Your task to perform on an android device: Search for vegetarian restaurants on Maps Image 0: 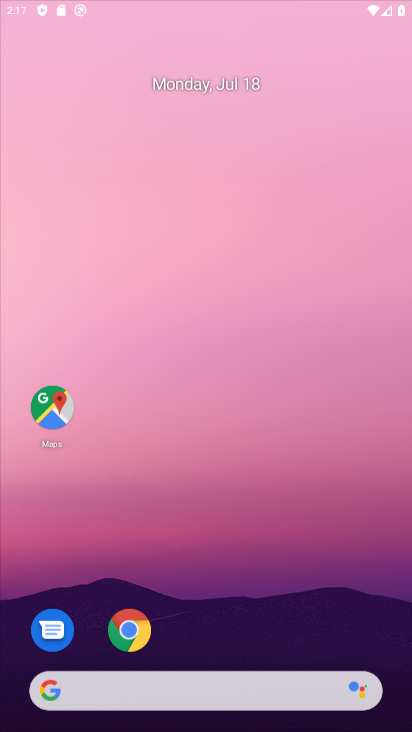
Step 0: drag from (300, 119) to (274, 46)
Your task to perform on an android device: Search for vegetarian restaurants on Maps Image 1: 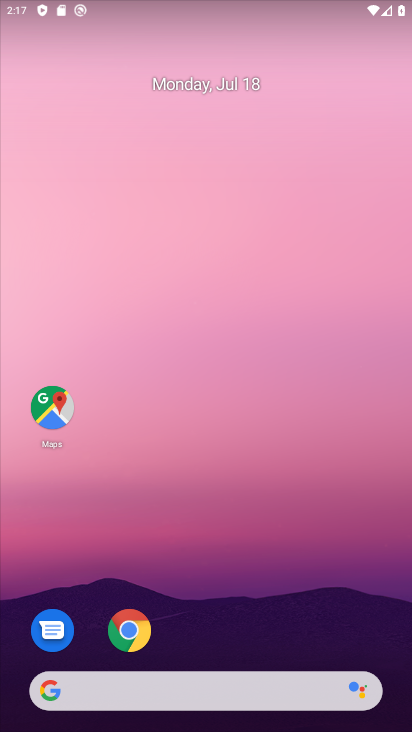
Step 1: drag from (357, 621) to (197, 6)
Your task to perform on an android device: Search for vegetarian restaurants on Maps Image 2: 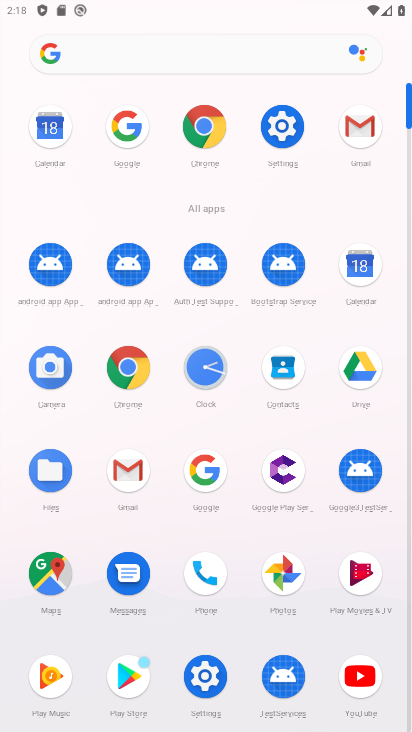
Step 2: click (49, 573)
Your task to perform on an android device: Search for vegetarian restaurants on Maps Image 3: 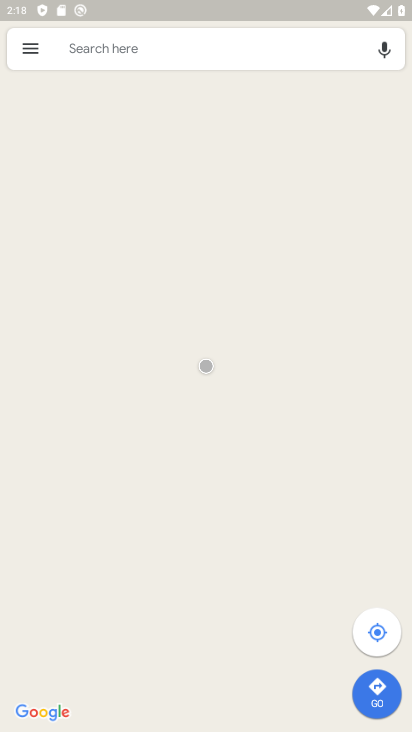
Step 3: click (173, 51)
Your task to perform on an android device: Search for vegetarian restaurants on Maps Image 4: 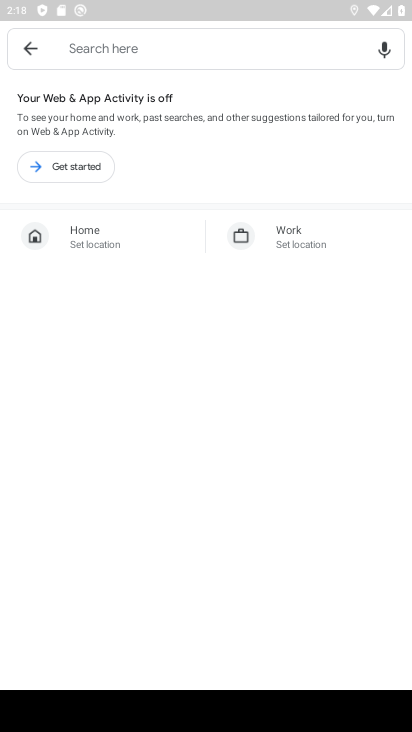
Step 4: click (86, 166)
Your task to perform on an android device: Search for vegetarian restaurants on Maps Image 5: 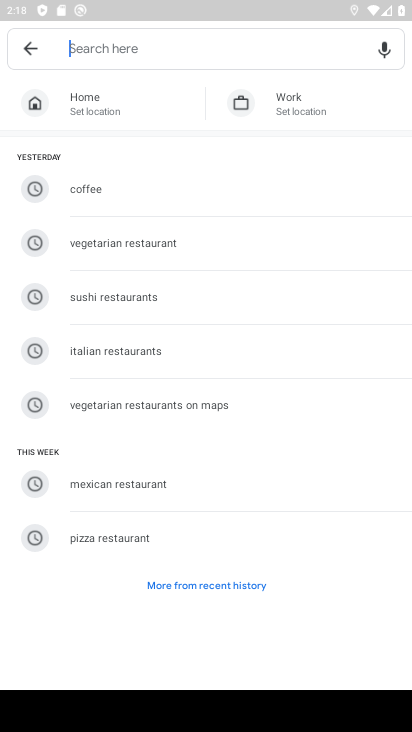
Step 5: click (110, 414)
Your task to perform on an android device: Search for vegetarian restaurants on Maps Image 6: 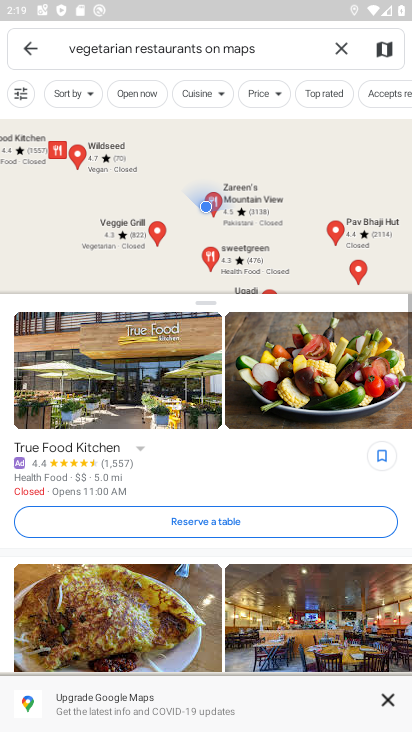
Step 6: task complete